Your task to perform on an android device: find snoozed emails in the gmail app Image 0: 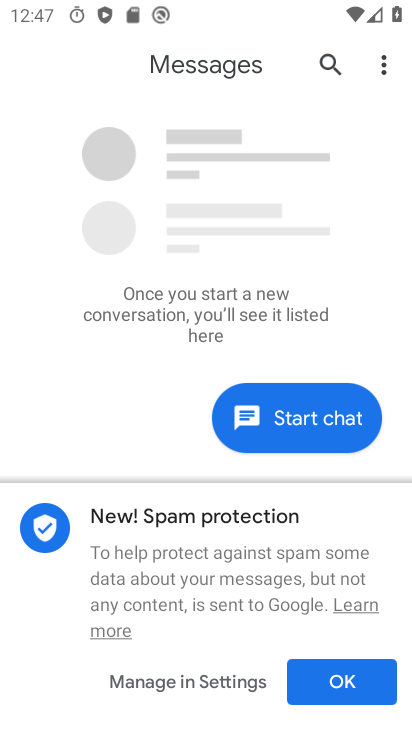
Step 0: press home button
Your task to perform on an android device: find snoozed emails in the gmail app Image 1: 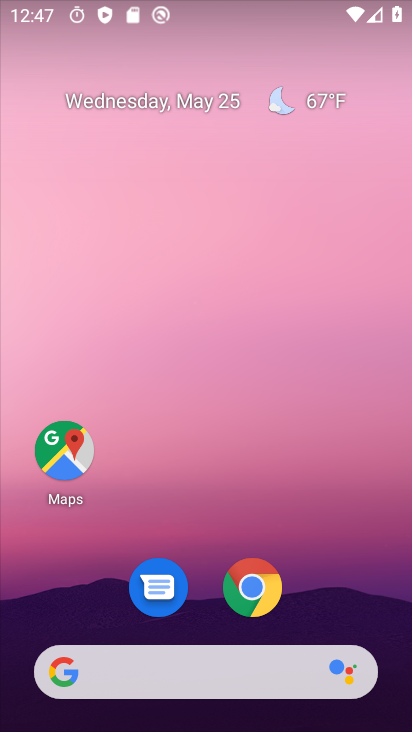
Step 1: drag from (222, 725) to (219, 183)
Your task to perform on an android device: find snoozed emails in the gmail app Image 2: 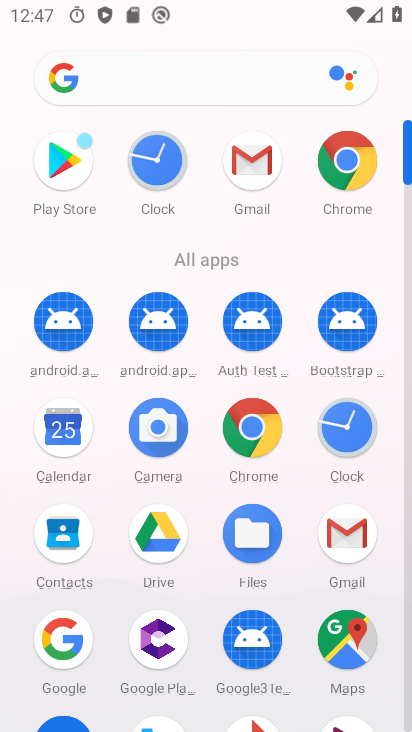
Step 2: click (341, 526)
Your task to perform on an android device: find snoozed emails in the gmail app Image 3: 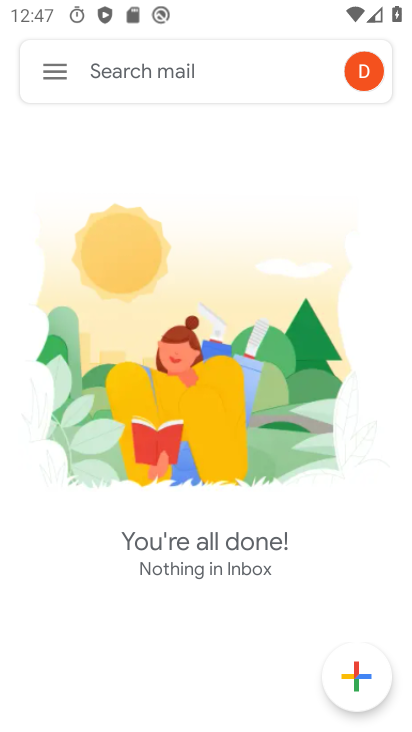
Step 3: click (55, 78)
Your task to perform on an android device: find snoozed emails in the gmail app Image 4: 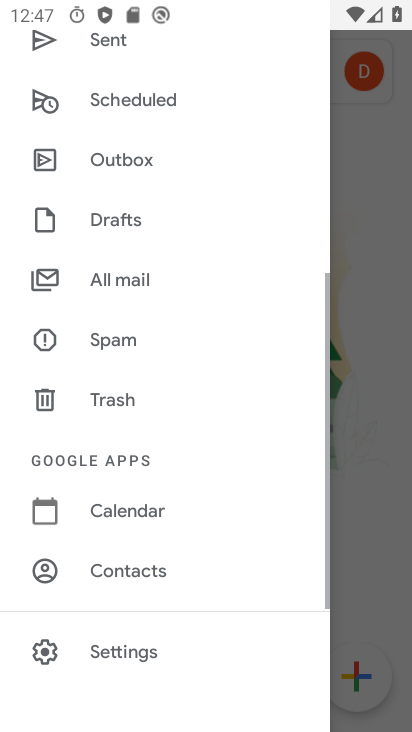
Step 4: drag from (156, 193) to (161, 521)
Your task to perform on an android device: find snoozed emails in the gmail app Image 5: 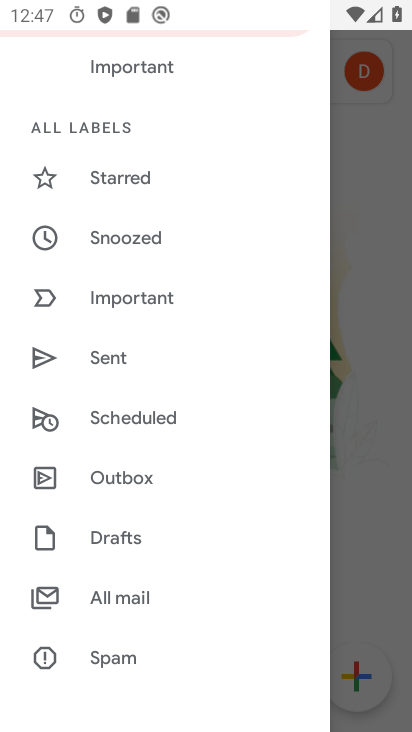
Step 5: click (129, 241)
Your task to perform on an android device: find snoozed emails in the gmail app Image 6: 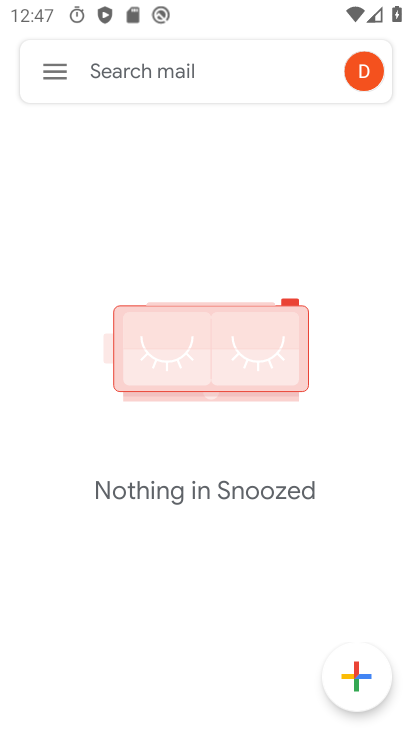
Step 6: task complete